Your task to perform on an android device: toggle wifi Image 0: 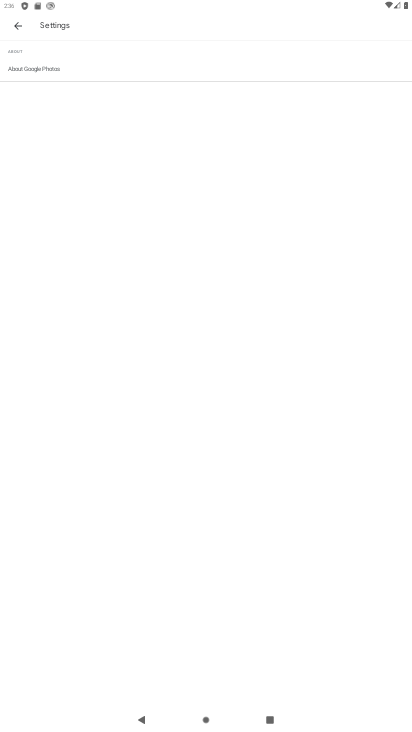
Step 0: press home button
Your task to perform on an android device: toggle wifi Image 1: 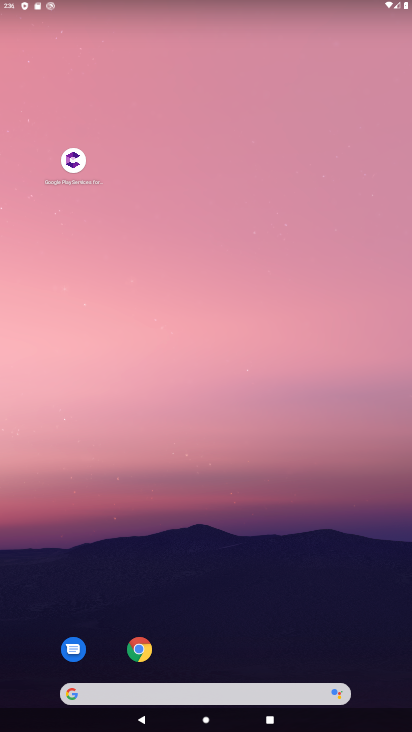
Step 1: drag from (228, 672) to (306, 221)
Your task to perform on an android device: toggle wifi Image 2: 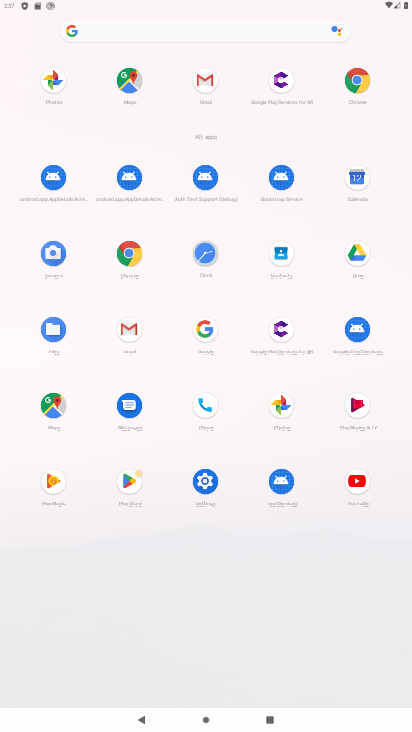
Step 2: click (212, 496)
Your task to perform on an android device: toggle wifi Image 3: 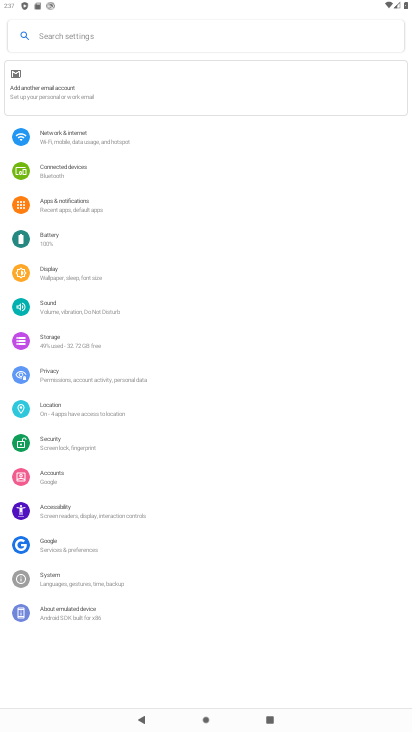
Step 3: click (121, 146)
Your task to perform on an android device: toggle wifi Image 4: 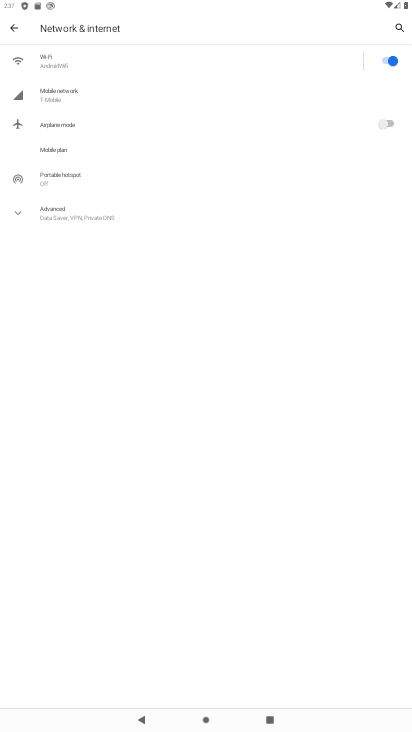
Step 4: click (390, 58)
Your task to perform on an android device: toggle wifi Image 5: 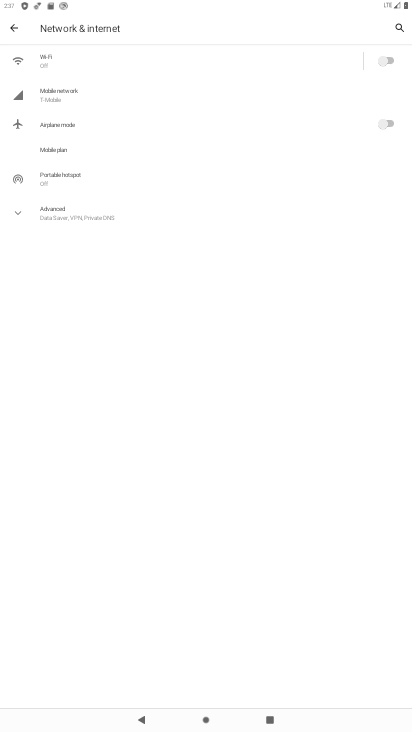
Step 5: task complete